Your task to perform on an android device: Open the calendar and show me this week's events? Image 0: 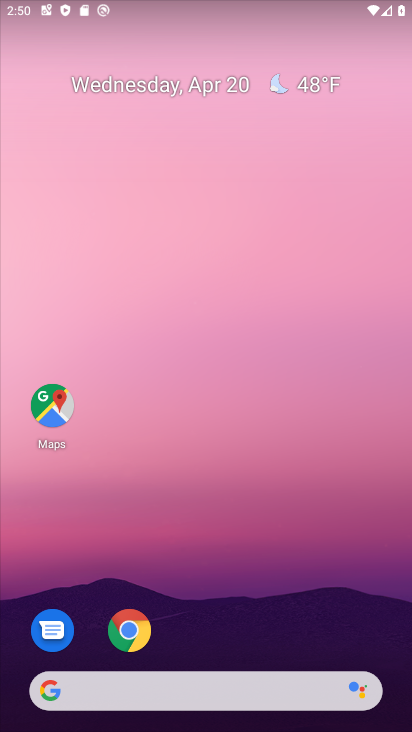
Step 0: drag from (190, 641) to (155, 134)
Your task to perform on an android device: Open the calendar and show me this week's events? Image 1: 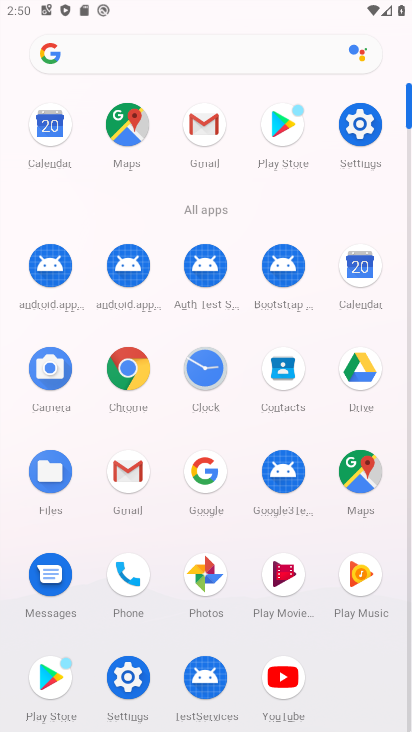
Step 1: click (357, 271)
Your task to perform on an android device: Open the calendar and show me this week's events? Image 2: 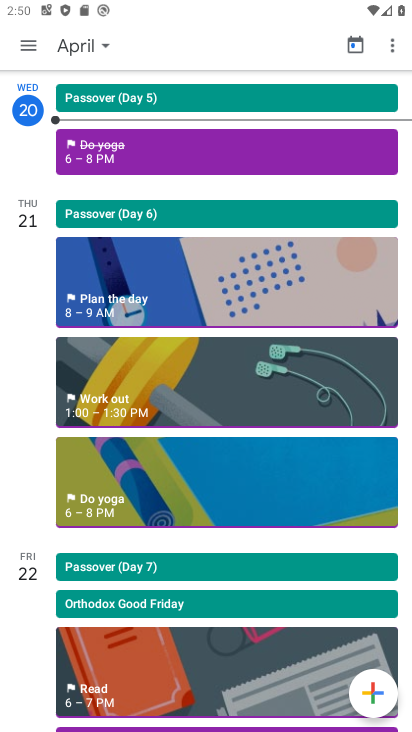
Step 2: task complete